Your task to perform on an android device: read, delete, or share a saved page in the chrome app Image 0: 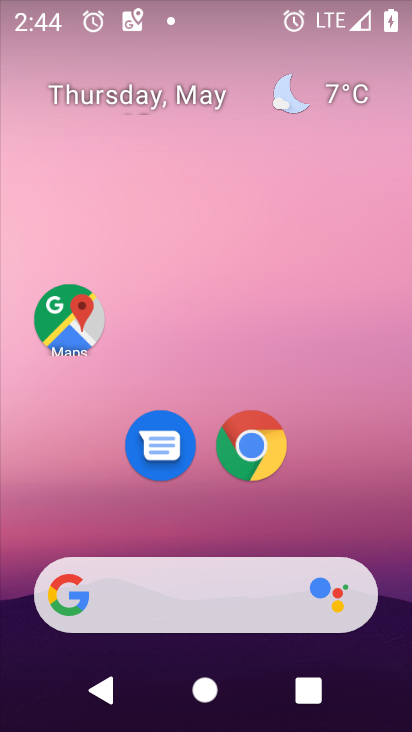
Step 0: click (261, 456)
Your task to perform on an android device: read, delete, or share a saved page in the chrome app Image 1: 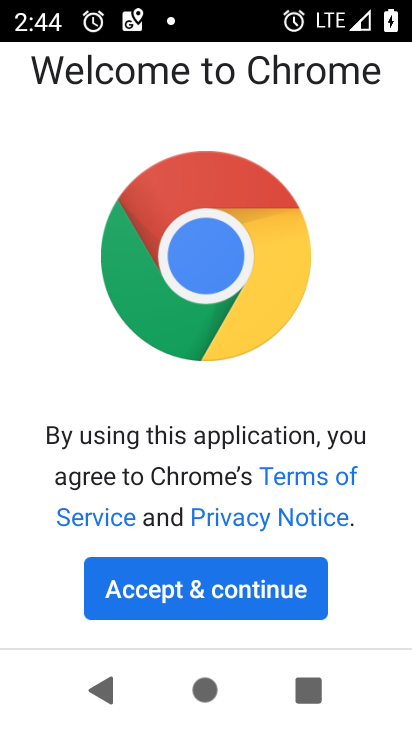
Step 1: click (207, 597)
Your task to perform on an android device: read, delete, or share a saved page in the chrome app Image 2: 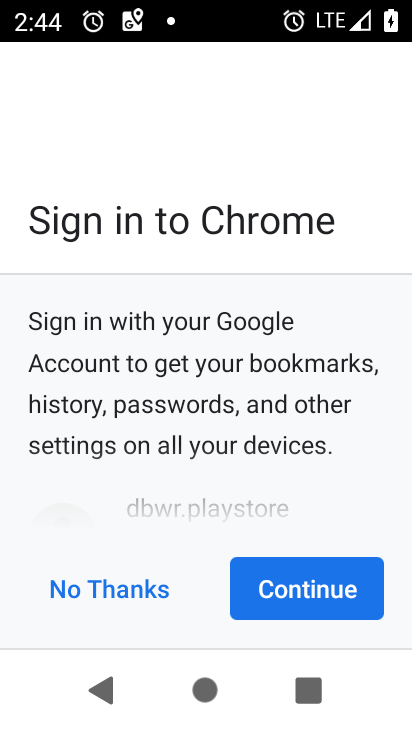
Step 2: click (119, 585)
Your task to perform on an android device: read, delete, or share a saved page in the chrome app Image 3: 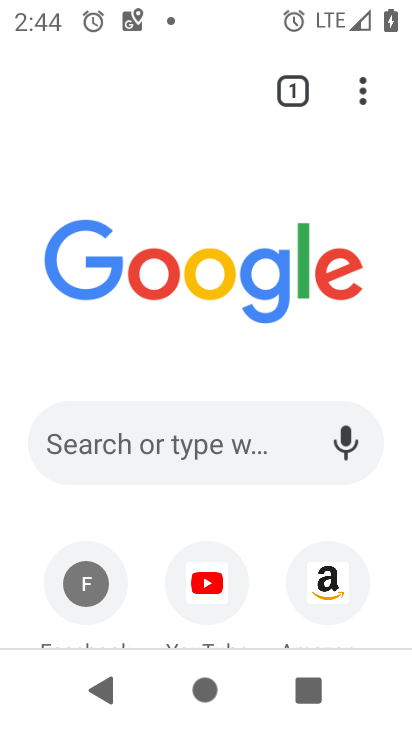
Step 3: click (368, 93)
Your task to perform on an android device: read, delete, or share a saved page in the chrome app Image 4: 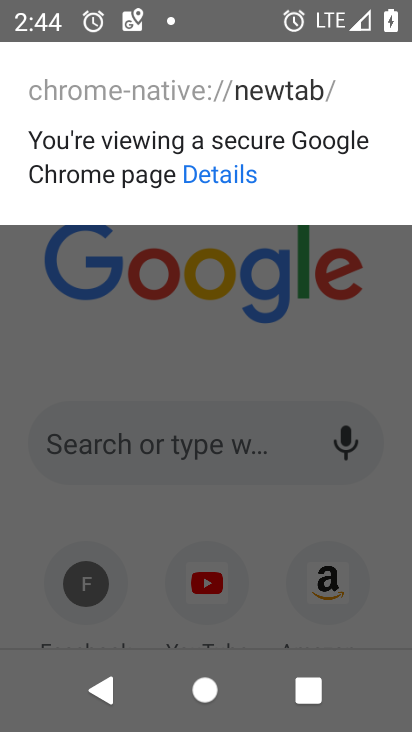
Step 4: click (404, 320)
Your task to perform on an android device: read, delete, or share a saved page in the chrome app Image 5: 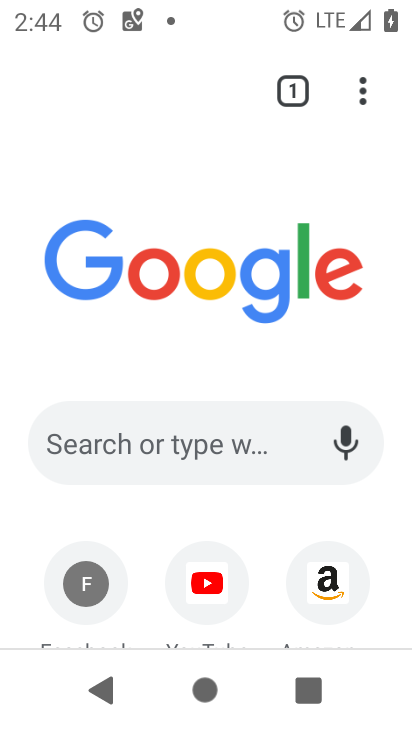
Step 5: click (367, 88)
Your task to perform on an android device: read, delete, or share a saved page in the chrome app Image 6: 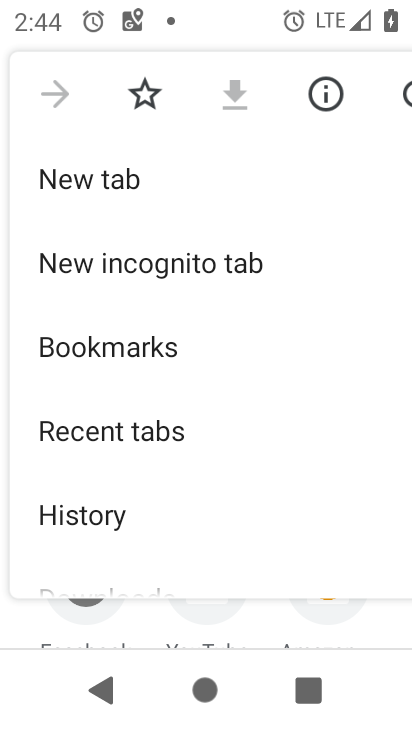
Step 6: drag from (241, 477) to (227, 129)
Your task to perform on an android device: read, delete, or share a saved page in the chrome app Image 7: 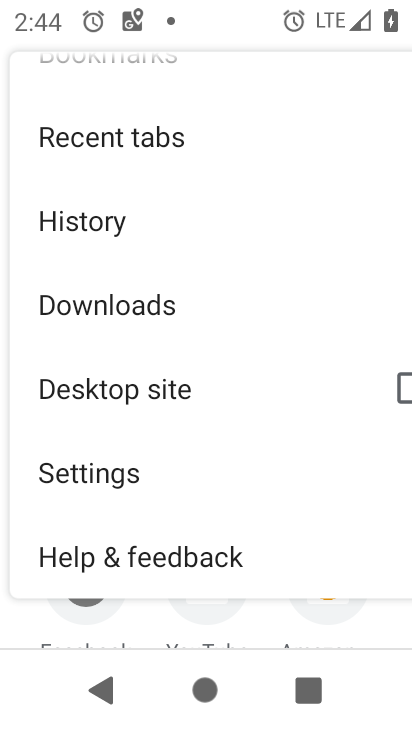
Step 7: click (99, 313)
Your task to perform on an android device: read, delete, or share a saved page in the chrome app Image 8: 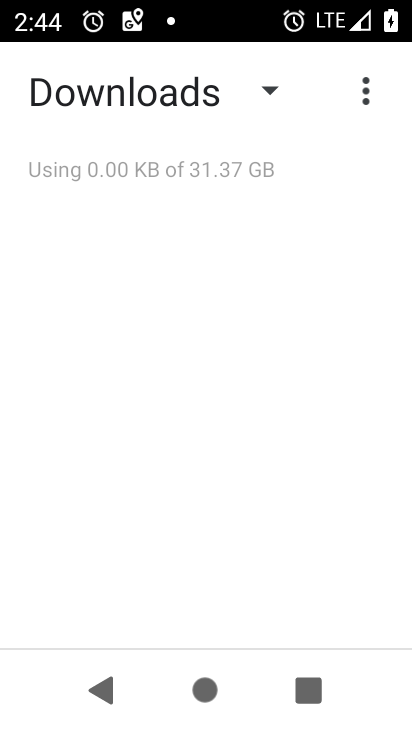
Step 8: click (269, 97)
Your task to perform on an android device: read, delete, or share a saved page in the chrome app Image 9: 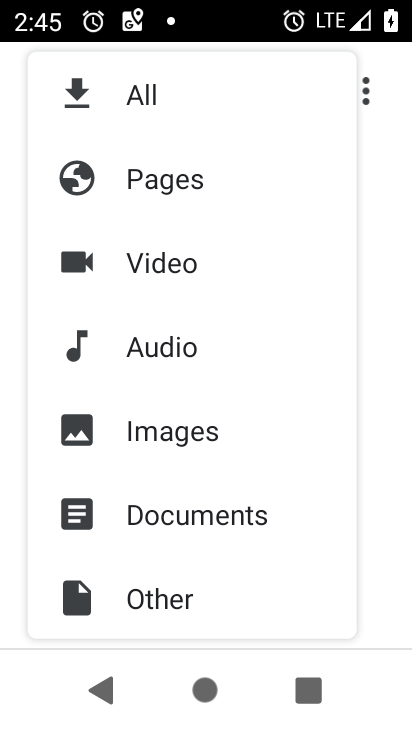
Step 9: click (144, 183)
Your task to perform on an android device: read, delete, or share a saved page in the chrome app Image 10: 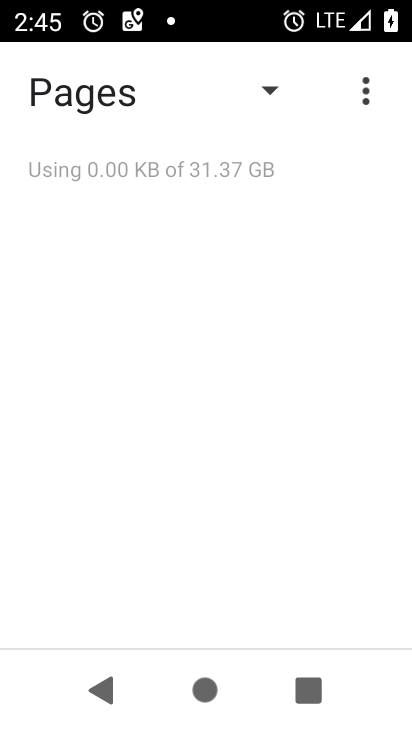
Step 10: task complete